Your task to perform on an android device: Open Maps and search for coffee Image 0: 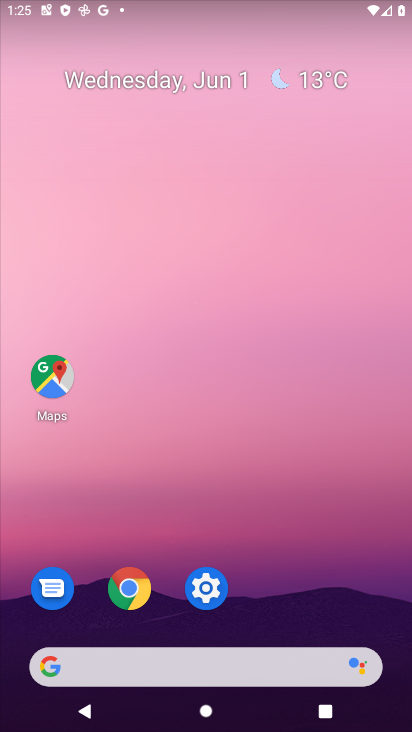
Step 0: click (47, 373)
Your task to perform on an android device: Open Maps and search for coffee Image 1: 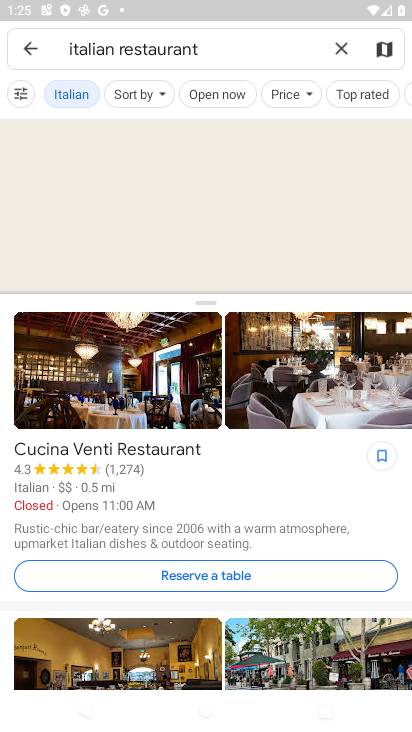
Step 1: click (330, 55)
Your task to perform on an android device: Open Maps and search for coffee Image 2: 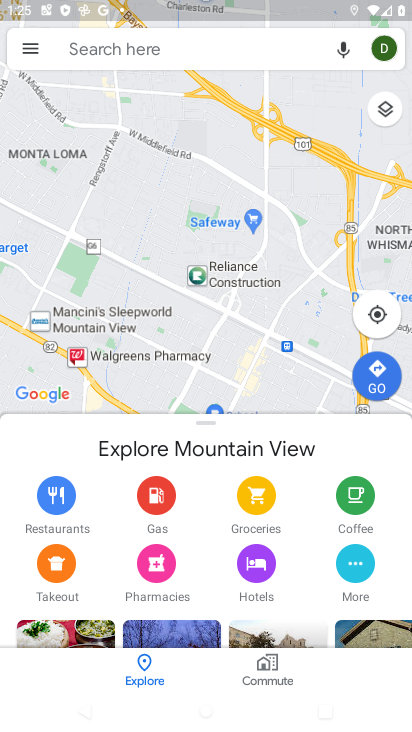
Step 2: click (143, 55)
Your task to perform on an android device: Open Maps and search for coffee Image 3: 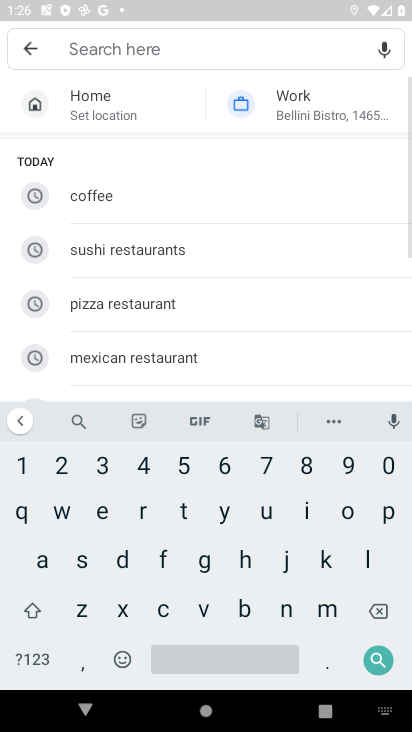
Step 3: click (79, 192)
Your task to perform on an android device: Open Maps and search for coffee Image 4: 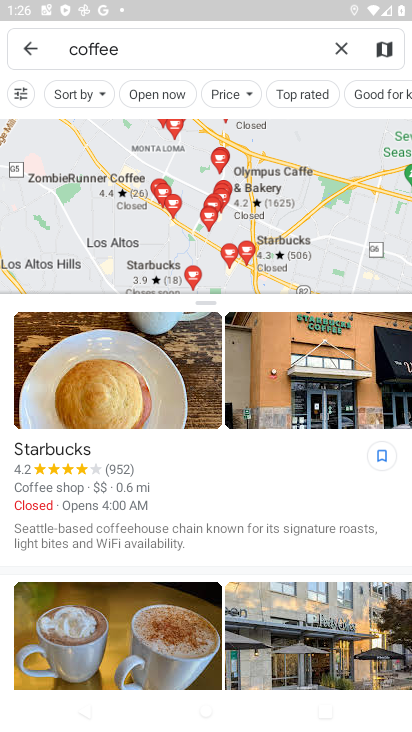
Step 4: click (102, 219)
Your task to perform on an android device: Open Maps and search for coffee Image 5: 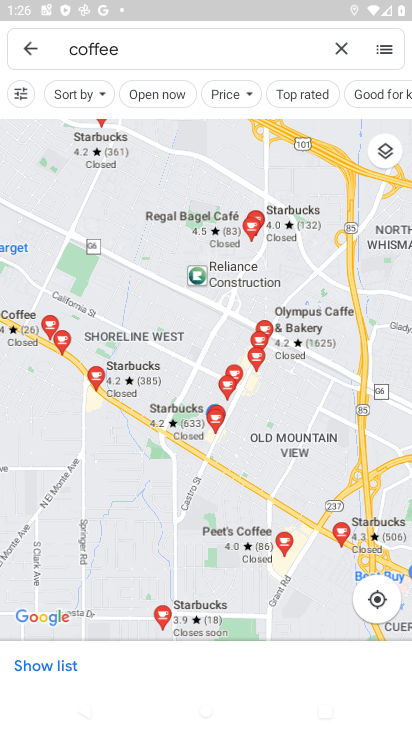
Step 5: task complete